Your task to perform on an android device: empty trash in the gmail app Image 0: 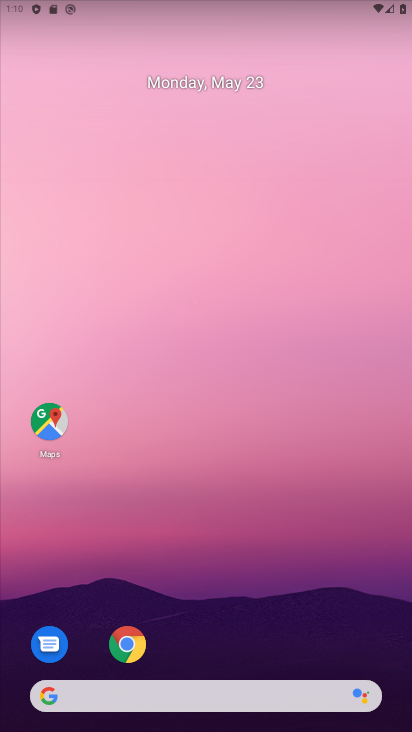
Step 0: drag from (194, 525) to (188, 28)
Your task to perform on an android device: empty trash in the gmail app Image 1: 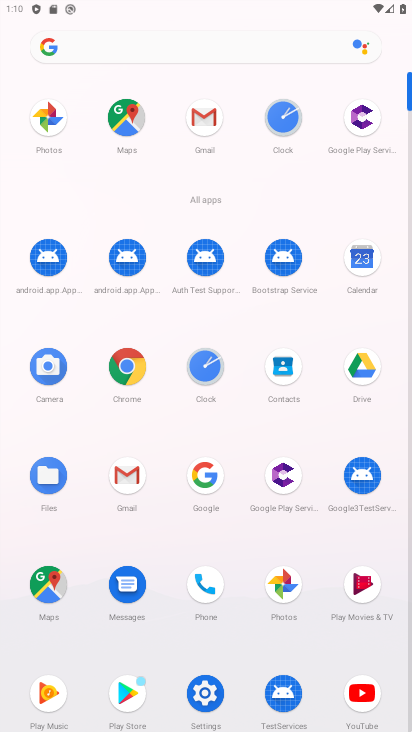
Step 1: drag from (0, 543) to (31, 183)
Your task to perform on an android device: empty trash in the gmail app Image 2: 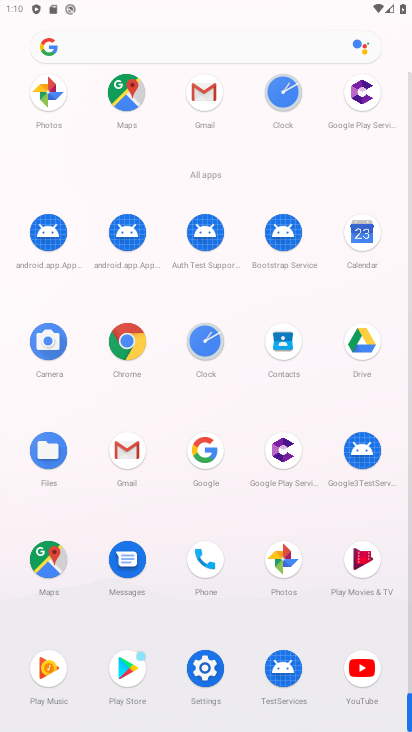
Step 2: drag from (20, 565) to (10, 235)
Your task to perform on an android device: empty trash in the gmail app Image 3: 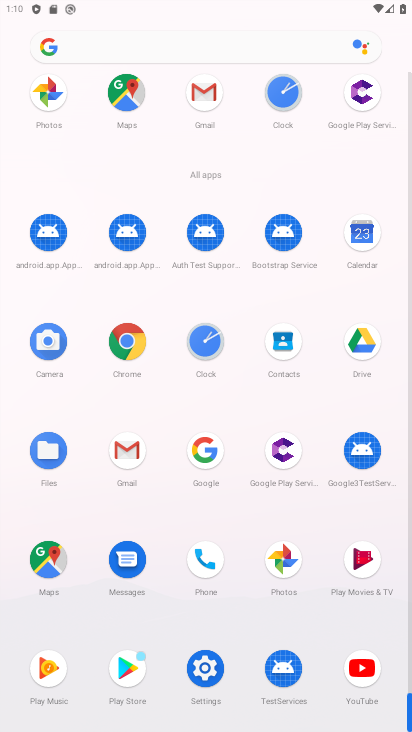
Step 3: click (126, 445)
Your task to perform on an android device: empty trash in the gmail app Image 4: 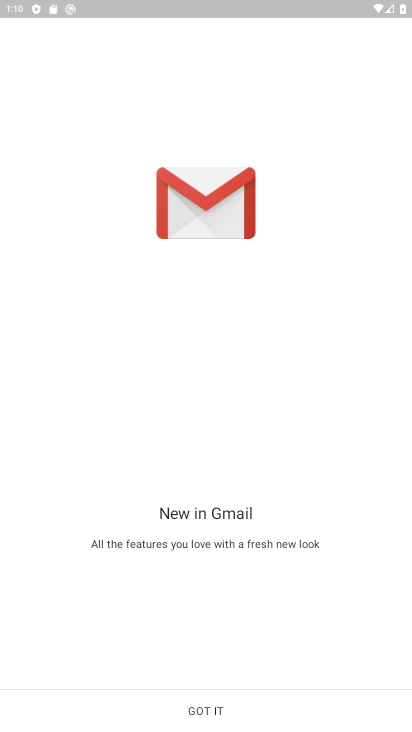
Step 4: click (215, 702)
Your task to perform on an android device: empty trash in the gmail app Image 5: 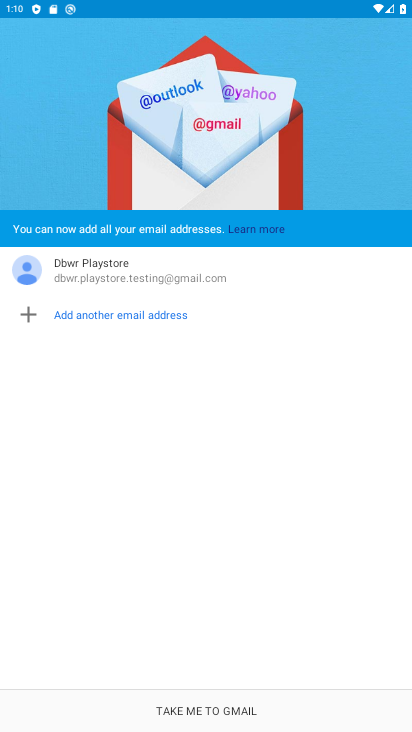
Step 5: click (204, 705)
Your task to perform on an android device: empty trash in the gmail app Image 6: 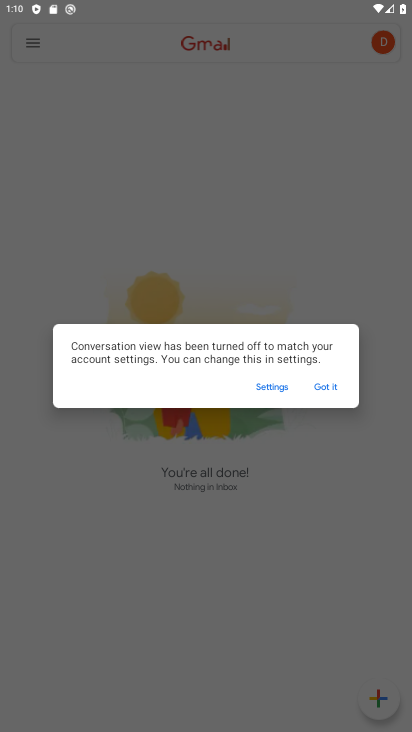
Step 6: click (331, 382)
Your task to perform on an android device: empty trash in the gmail app Image 7: 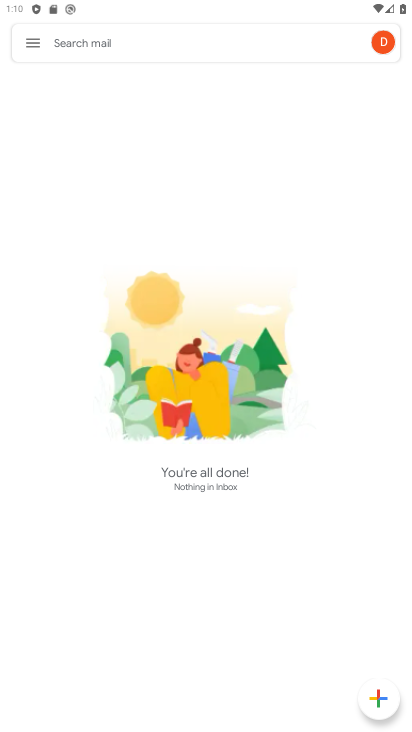
Step 7: click (32, 32)
Your task to perform on an android device: empty trash in the gmail app Image 8: 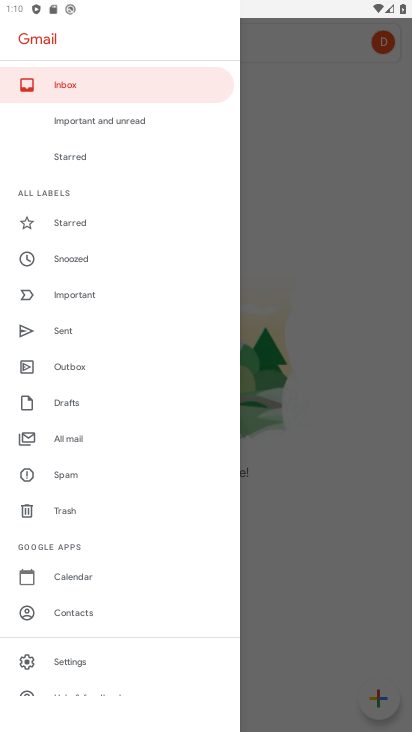
Step 8: click (71, 509)
Your task to perform on an android device: empty trash in the gmail app Image 9: 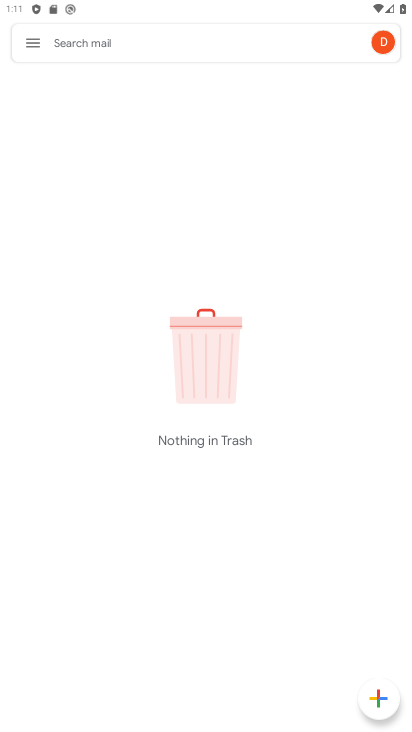
Step 9: task complete